Your task to perform on an android device: snooze an email in the gmail app Image 0: 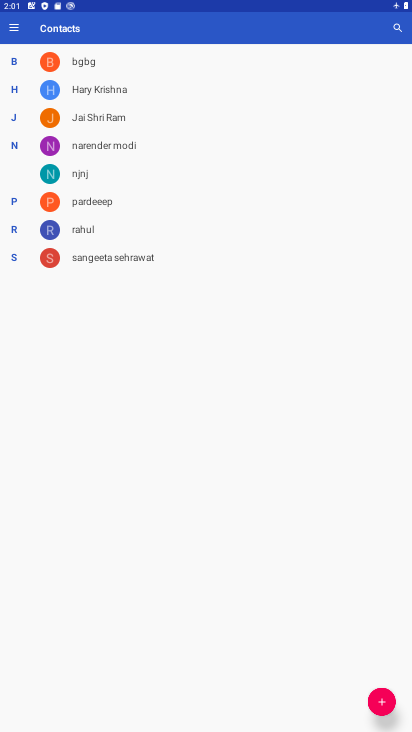
Step 0: press home button
Your task to perform on an android device: snooze an email in the gmail app Image 1: 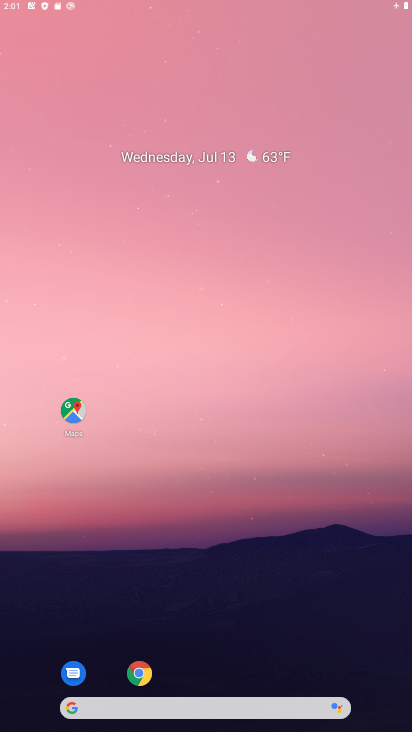
Step 1: drag from (232, 637) to (229, 249)
Your task to perform on an android device: snooze an email in the gmail app Image 2: 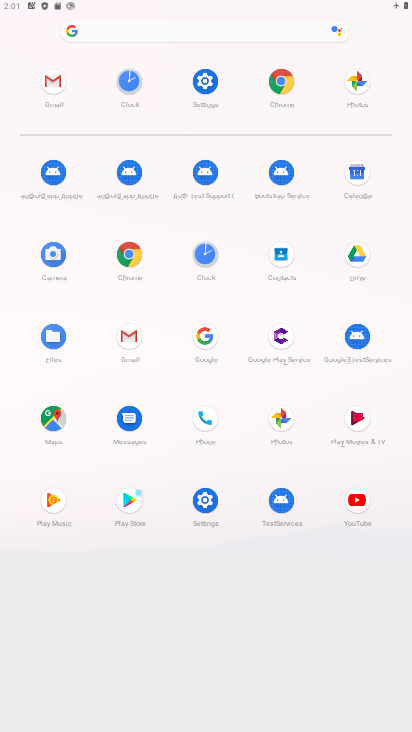
Step 2: click (129, 332)
Your task to perform on an android device: snooze an email in the gmail app Image 3: 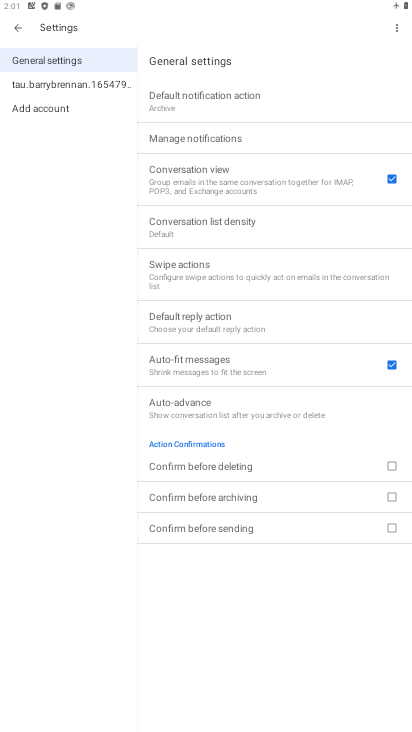
Step 3: click (16, 34)
Your task to perform on an android device: snooze an email in the gmail app Image 4: 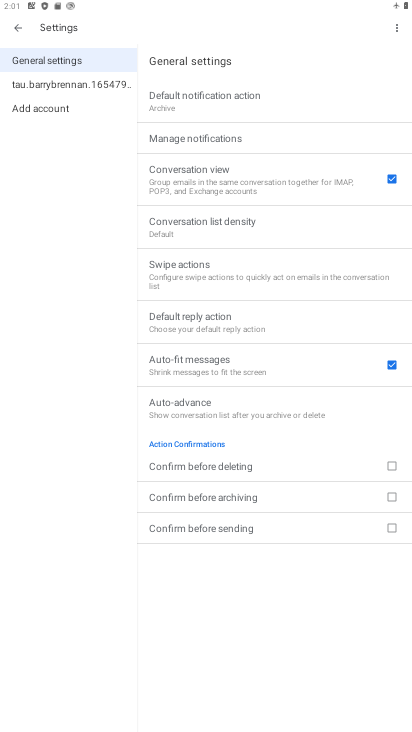
Step 4: click (14, 19)
Your task to perform on an android device: snooze an email in the gmail app Image 5: 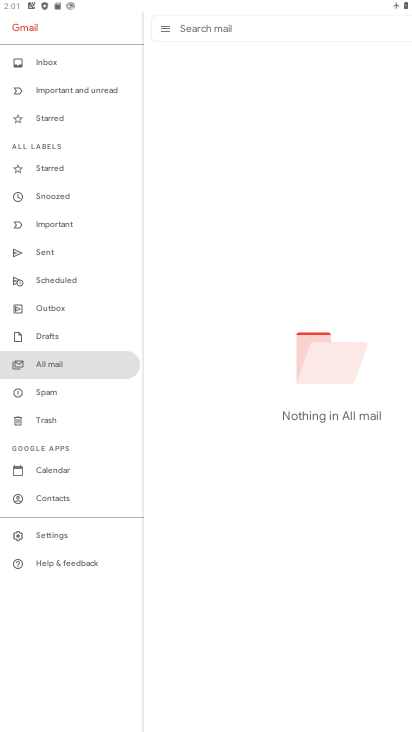
Step 5: click (46, 189)
Your task to perform on an android device: snooze an email in the gmail app Image 6: 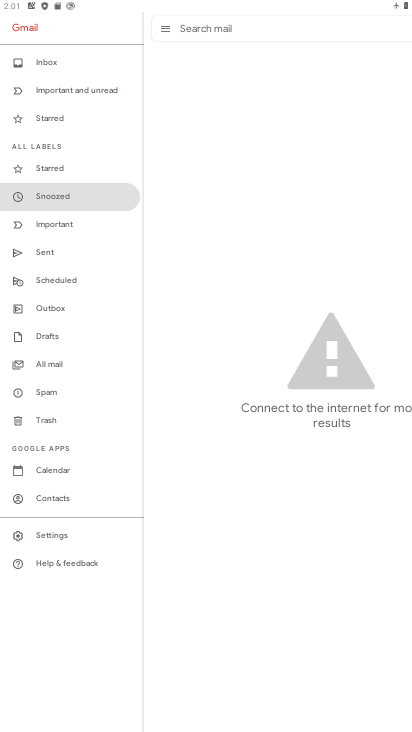
Step 6: task complete